Your task to perform on an android device: Open calendar and show me the fourth week of next month Image 0: 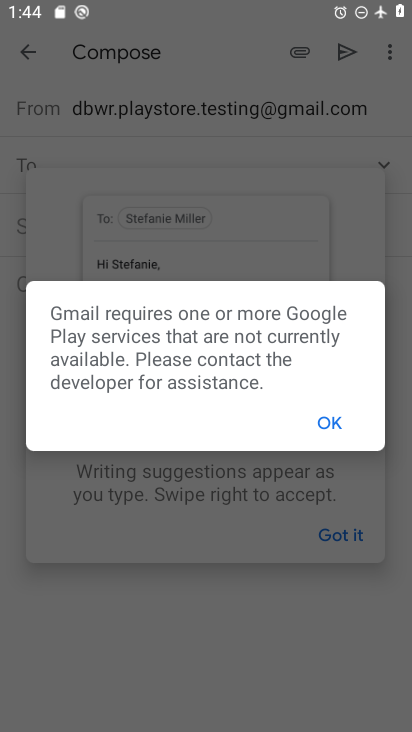
Step 0: press home button
Your task to perform on an android device: Open calendar and show me the fourth week of next month Image 1: 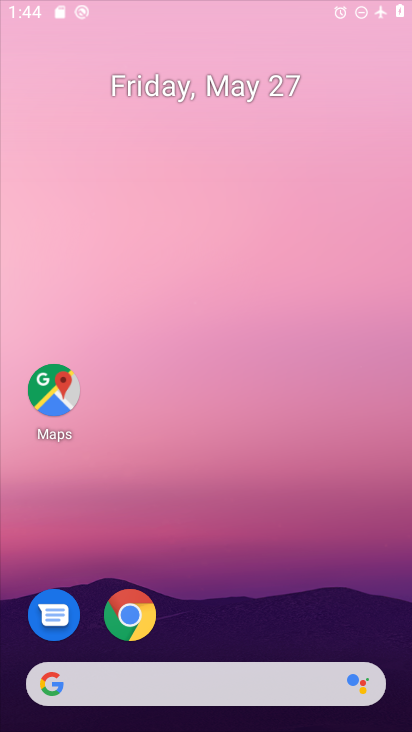
Step 1: drag from (237, 657) to (239, 5)
Your task to perform on an android device: Open calendar and show me the fourth week of next month Image 2: 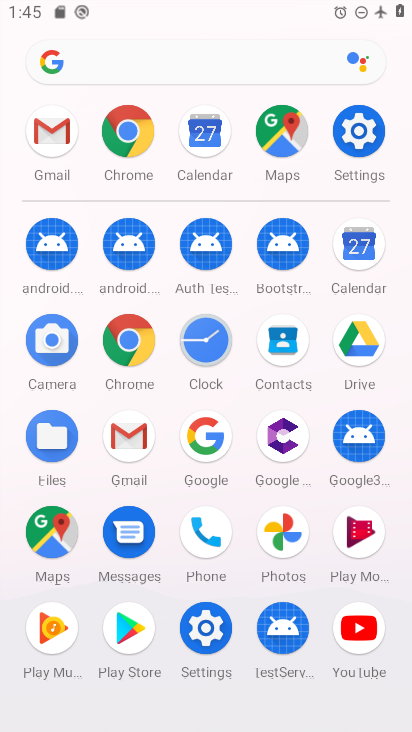
Step 2: click (356, 250)
Your task to perform on an android device: Open calendar and show me the fourth week of next month Image 3: 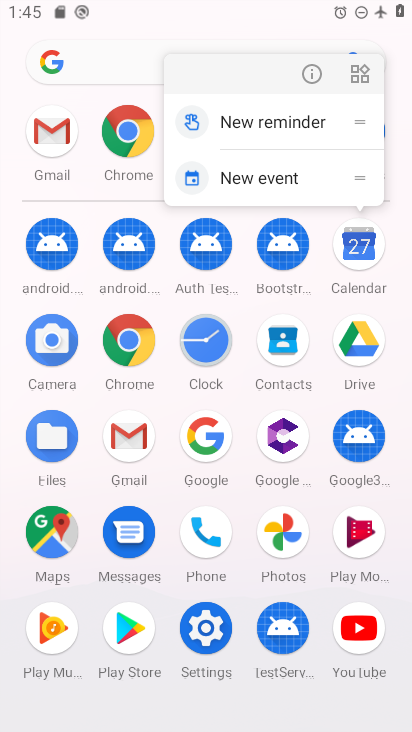
Step 3: click (340, 254)
Your task to perform on an android device: Open calendar and show me the fourth week of next month Image 4: 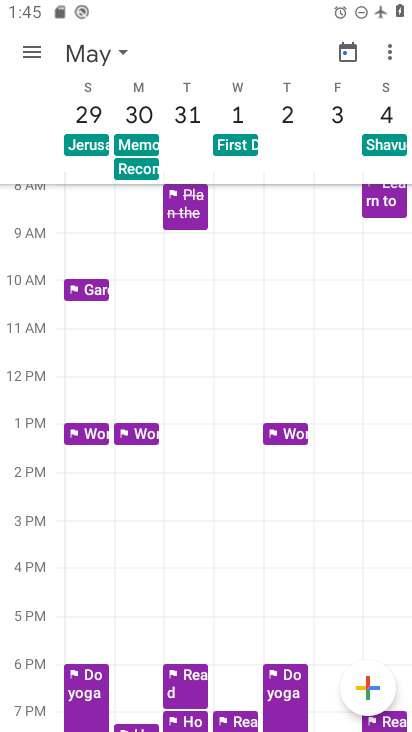
Step 4: click (131, 52)
Your task to perform on an android device: Open calendar and show me the fourth week of next month Image 5: 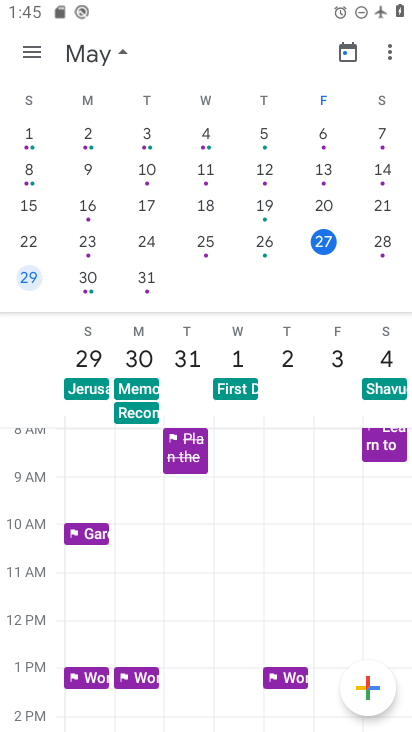
Step 5: drag from (383, 262) to (14, 292)
Your task to perform on an android device: Open calendar and show me the fourth week of next month Image 6: 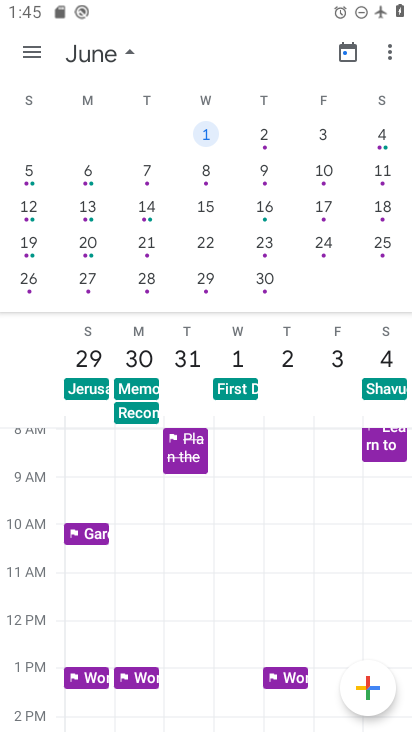
Step 6: click (210, 246)
Your task to perform on an android device: Open calendar and show me the fourth week of next month Image 7: 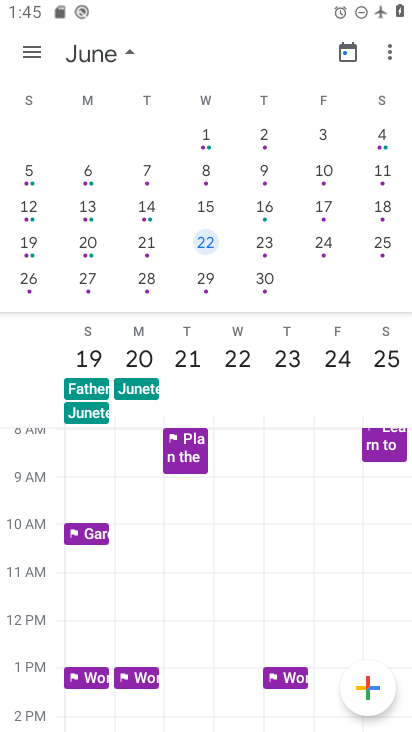
Step 7: task complete